Your task to perform on an android device: turn on showing notifications on the lock screen Image 0: 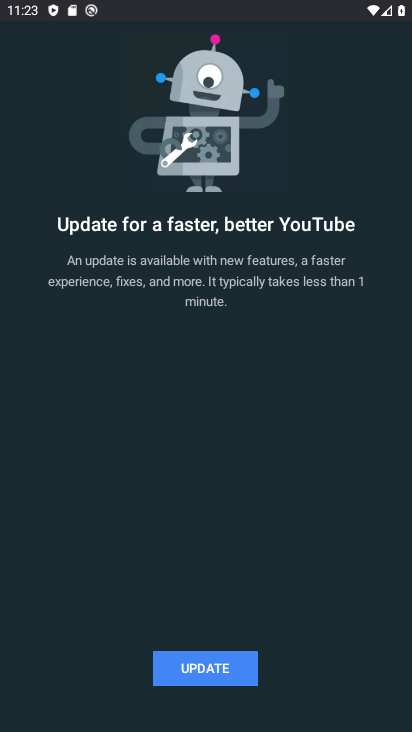
Step 0: press home button
Your task to perform on an android device: turn on showing notifications on the lock screen Image 1: 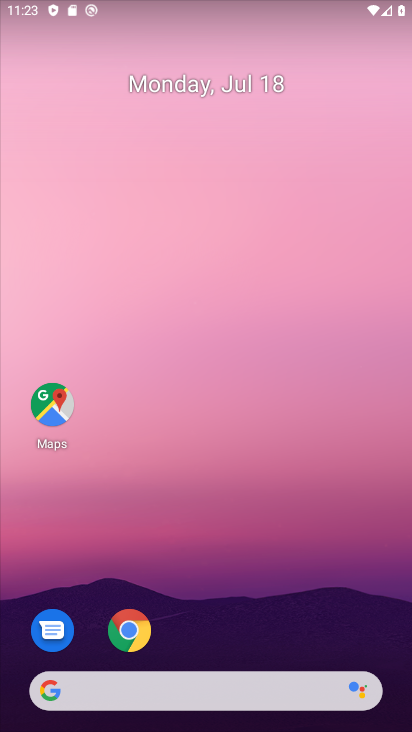
Step 1: drag from (192, 656) to (178, 6)
Your task to perform on an android device: turn on showing notifications on the lock screen Image 2: 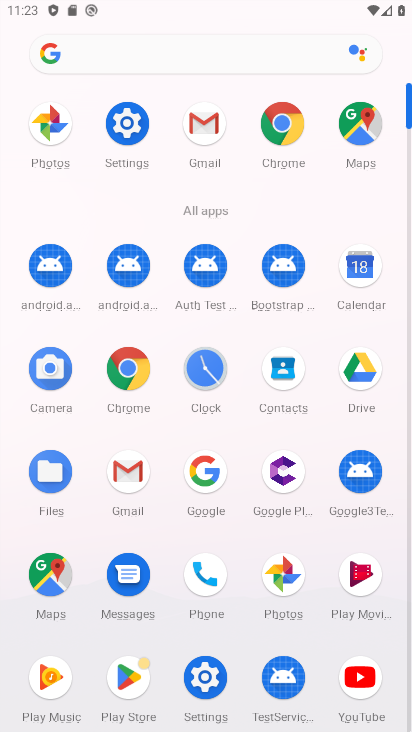
Step 2: click (212, 673)
Your task to perform on an android device: turn on showing notifications on the lock screen Image 3: 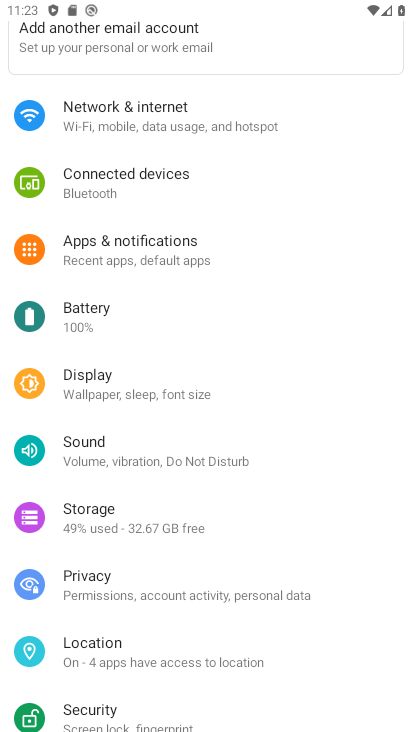
Step 3: click (171, 250)
Your task to perform on an android device: turn on showing notifications on the lock screen Image 4: 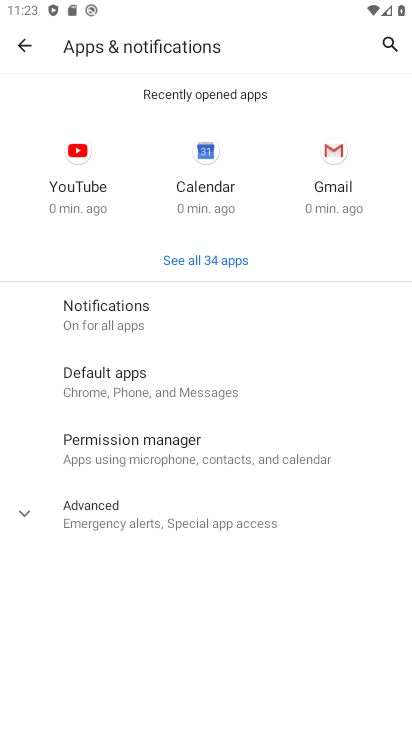
Step 4: click (140, 328)
Your task to perform on an android device: turn on showing notifications on the lock screen Image 5: 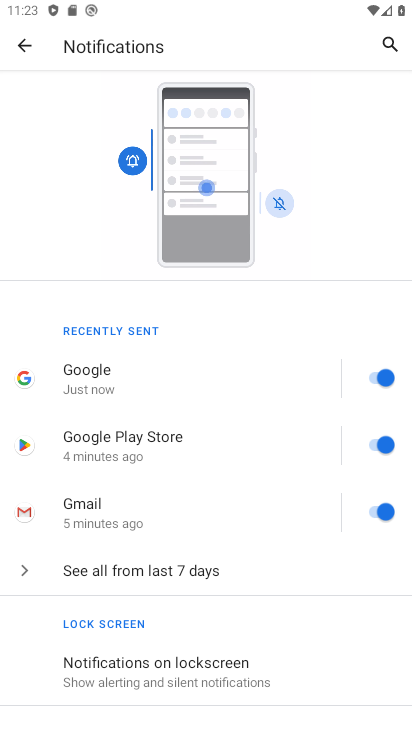
Step 5: click (169, 675)
Your task to perform on an android device: turn on showing notifications on the lock screen Image 6: 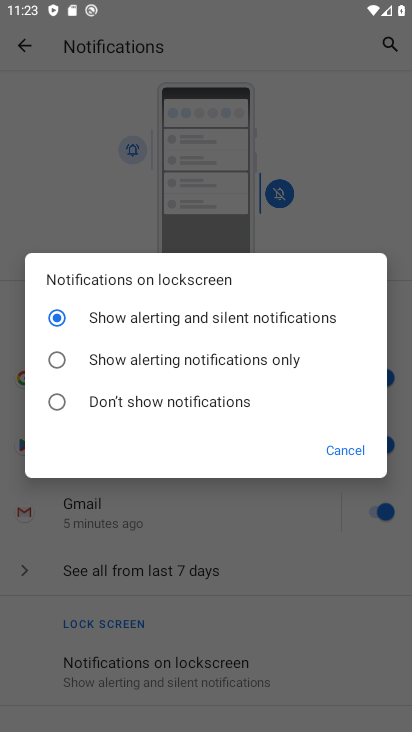
Step 6: task complete